Your task to perform on an android device: Go to calendar. Show me events next week Image 0: 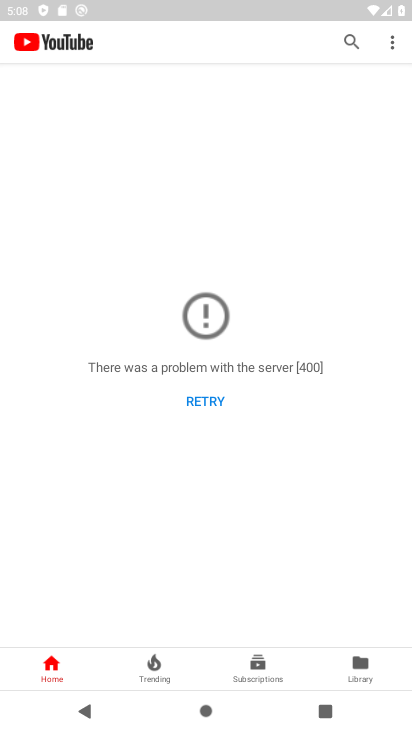
Step 0: drag from (259, 139) to (253, 27)
Your task to perform on an android device: Go to calendar. Show me events next week Image 1: 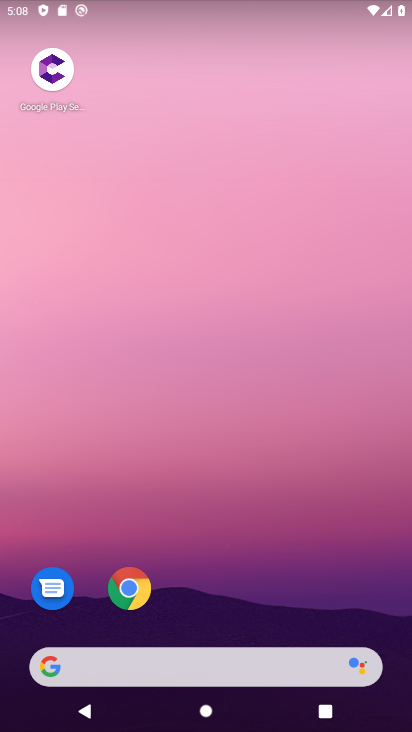
Step 1: drag from (301, 572) to (228, 20)
Your task to perform on an android device: Go to calendar. Show me events next week Image 2: 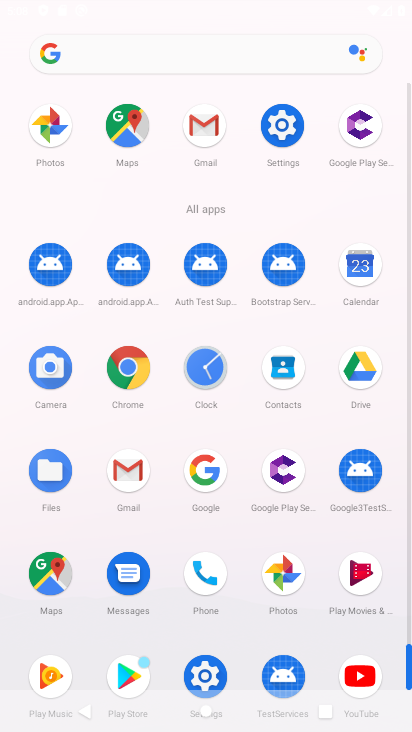
Step 2: drag from (15, 399) to (15, 182)
Your task to perform on an android device: Go to calendar. Show me events next week Image 3: 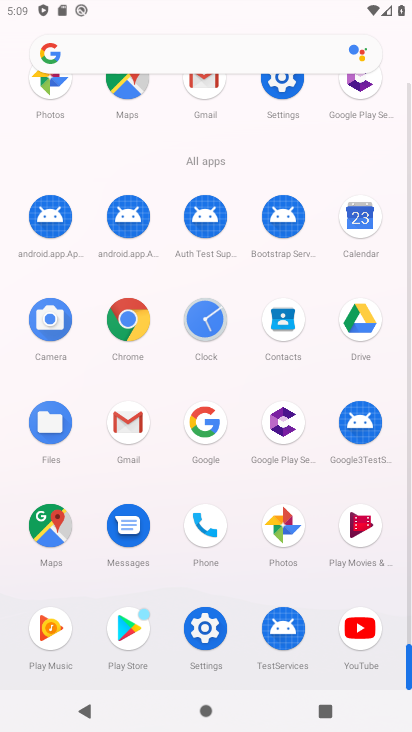
Step 3: click (364, 211)
Your task to perform on an android device: Go to calendar. Show me events next week Image 4: 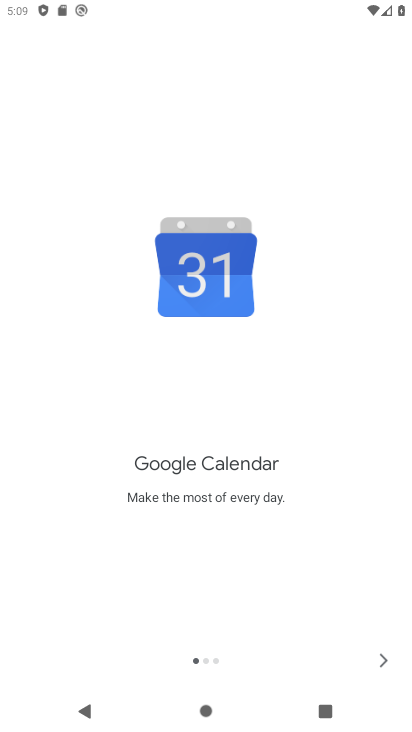
Step 4: click (380, 660)
Your task to perform on an android device: Go to calendar. Show me events next week Image 5: 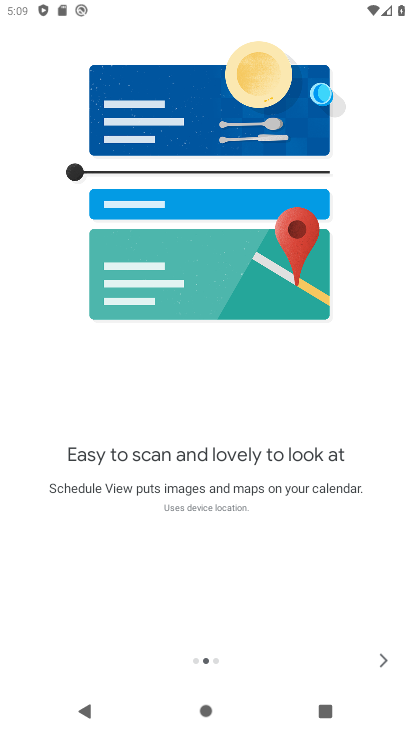
Step 5: click (383, 659)
Your task to perform on an android device: Go to calendar. Show me events next week Image 6: 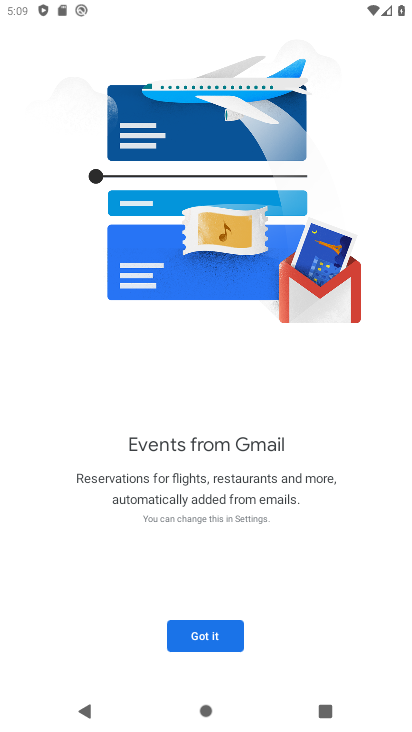
Step 6: click (190, 628)
Your task to perform on an android device: Go to calendar. Show me events next week Image 7: 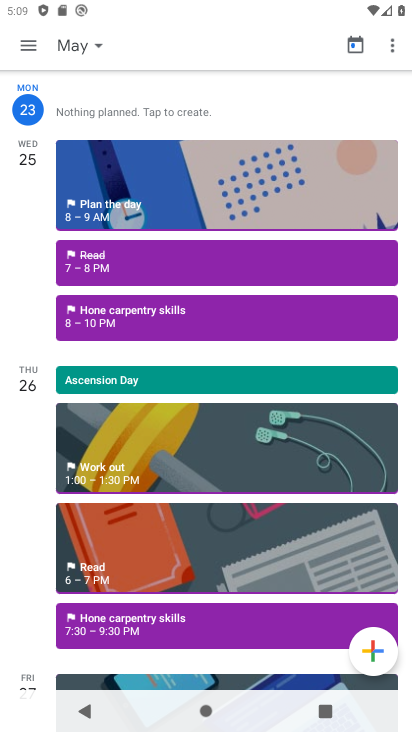
Step 7: click (29, 42)
Your task to perform on an android device: Go to calendar. Show me events next week Image 8: 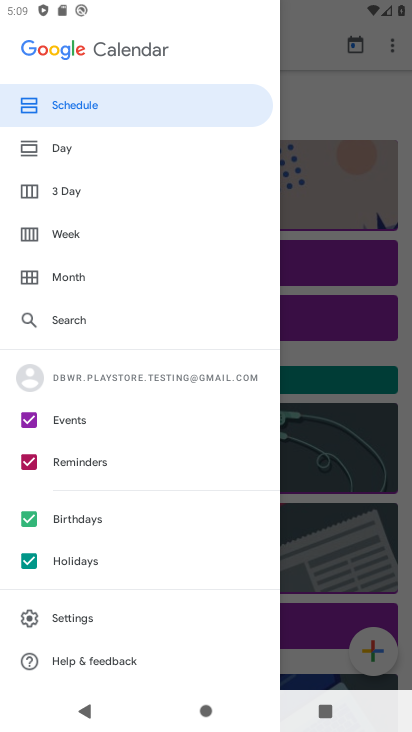
Step 8: click (82, 229)
Your task to perform on an android device: Go to calendar. Show me events next week Image 9: 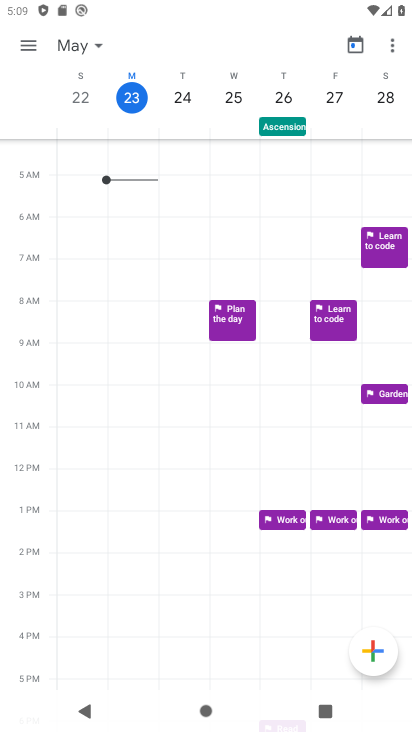
Step 9: task complete